Your task to perform on an android device: manage bookmarks in the chrome app Image 0: 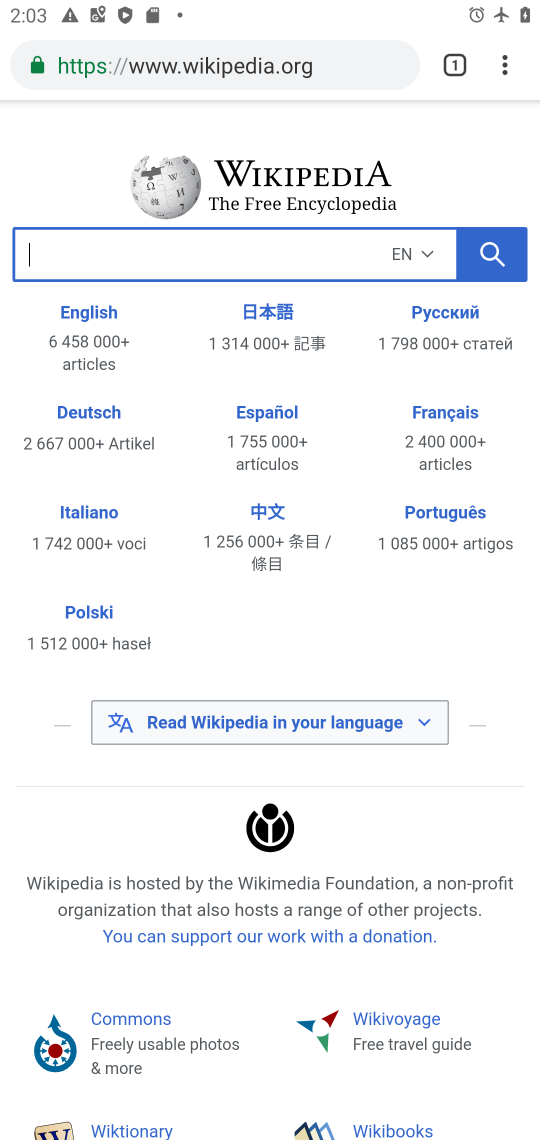
Step 0: drag from (501, 64) to (299, 238)
Your task to perform on an android device: manage bookmarks in the chrome app Image 1: 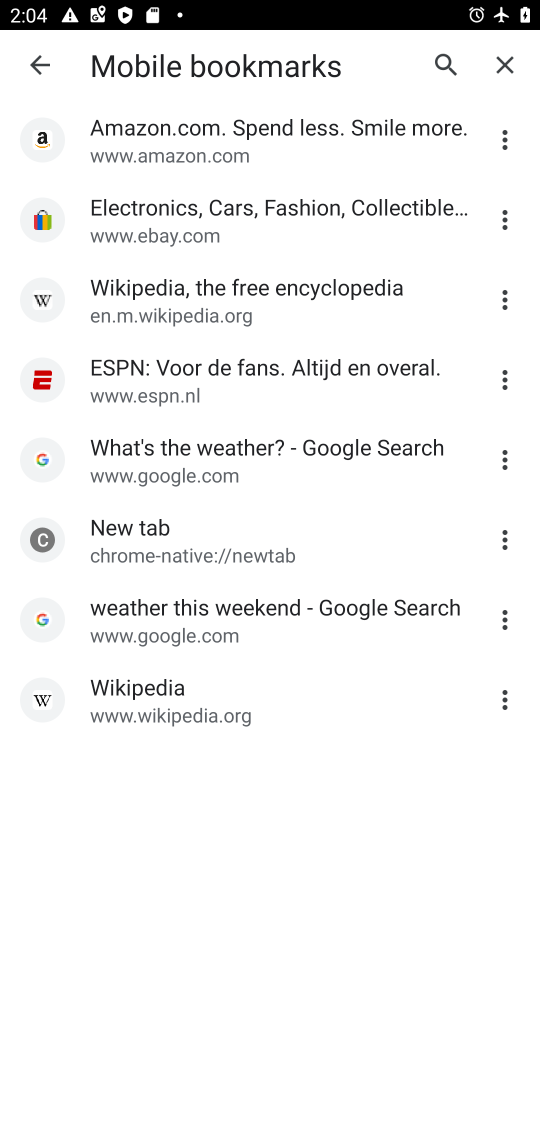
Step 1: click (511, 618)
Your task to perform on an android device: manage bookmarks in the chrome app Image 2: 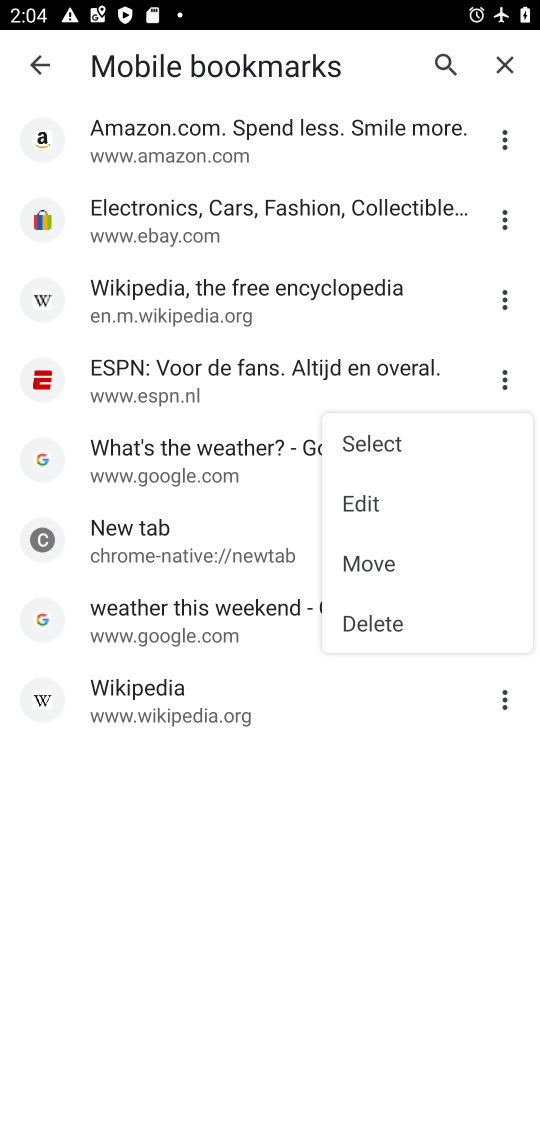
Step 2: click (376, 618)
Your task to perform on an android device: manage bookmarks in the chrome app Image 3: 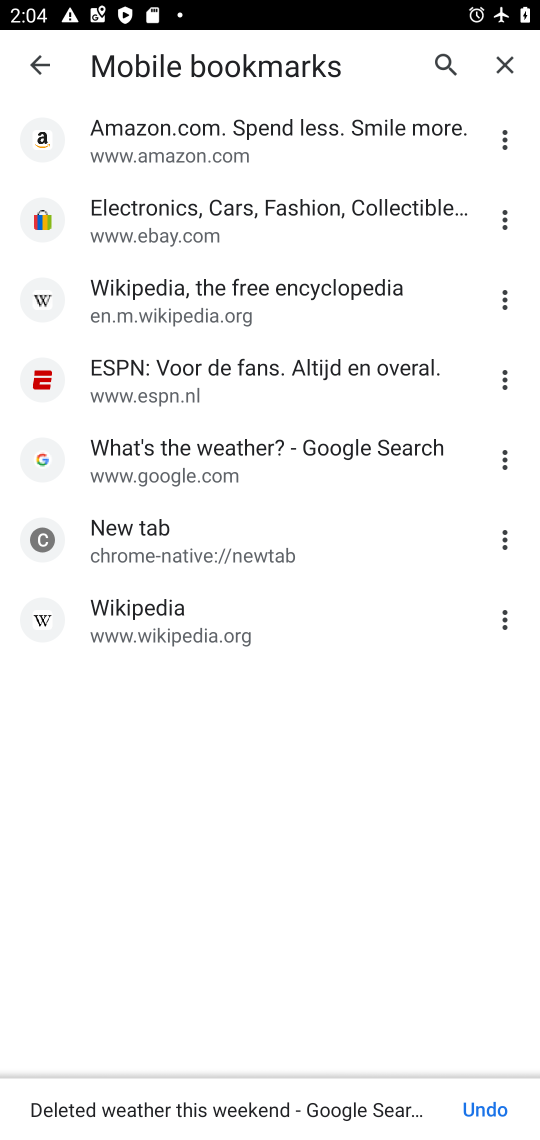
Step 3: task complete